Your task to perform on an android device: choose inbox layout in the gmail app Image 0: 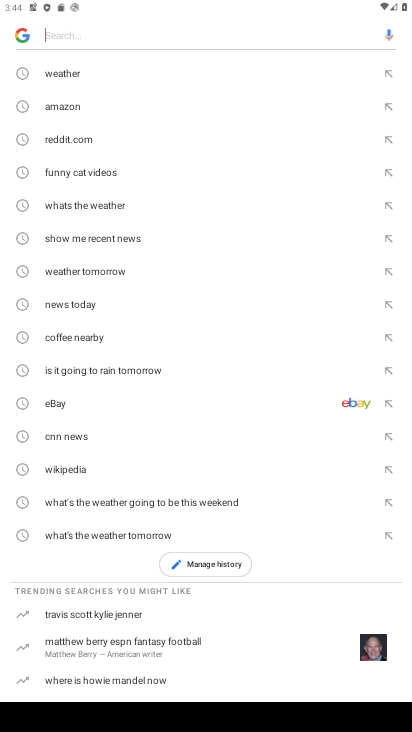
Step 0: press home button
Your task to perform on an android device: choose inbox layout in the gmail app Image 1: 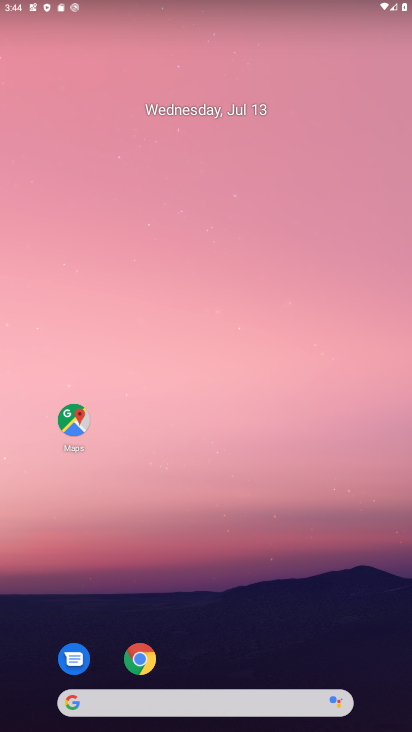
Step 1: drag from (209, 665) to (249, 226)
Your task to perform on an android device: choose inbox layout in the gmail app Image 2: 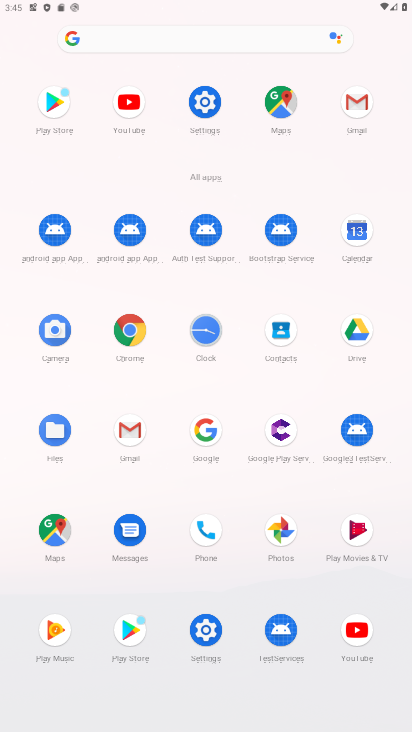
Step 2: click (351, 99)
Your task to perform on an android device: choose inbox layout in the gmail app Image 3: 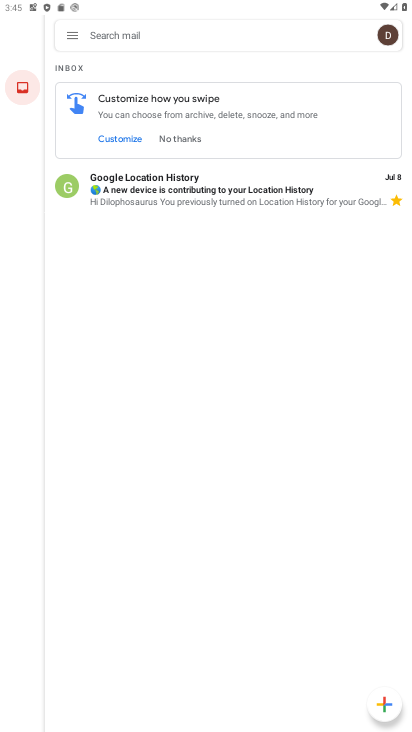
Step 3: click (61, 183)
Your task to perform on an android device: choose inbox layout in the gmail app Image 4: 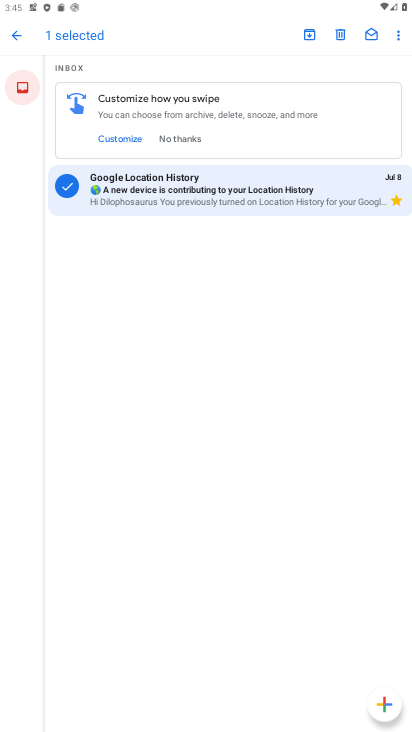
Step 4: click (16, 36)
Your task to perform on an android device: choose inbox layout in the gmail app Image 5: 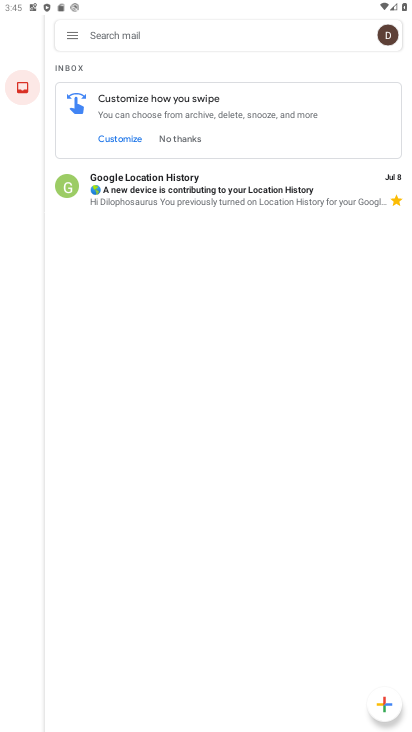
Step 5: click (14, 30)
Your task to perform on an android device: choose inbox layout in the gmail app Image 6: 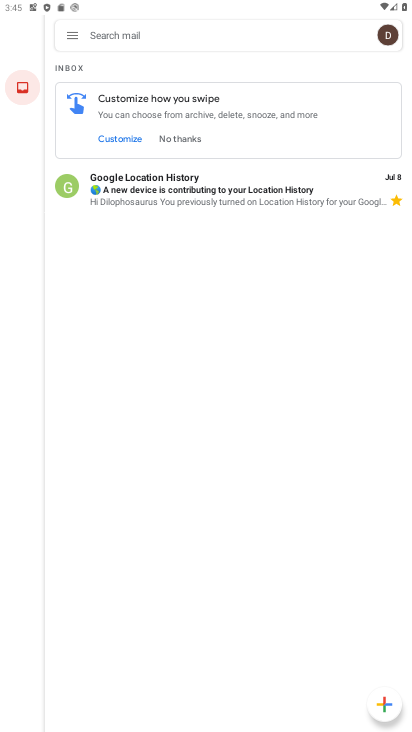
Step 6: click (71, 31)
Your task to perform on an android device: choose inbox layout in the gmail app Image 7: 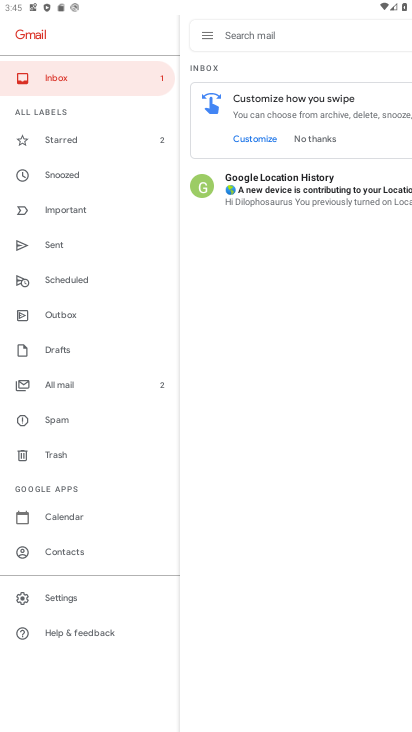
Step 7: click (73, 594)
Your task to perform on an android device: choose inbox layout in the gmail app Image 8: 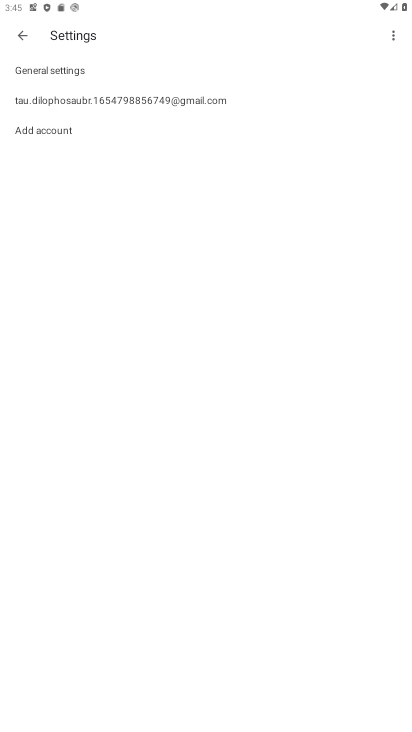
Step 8: click (169, 101)
Your task to perform on an android device: choose inbox layout in the gmail app Image 9: 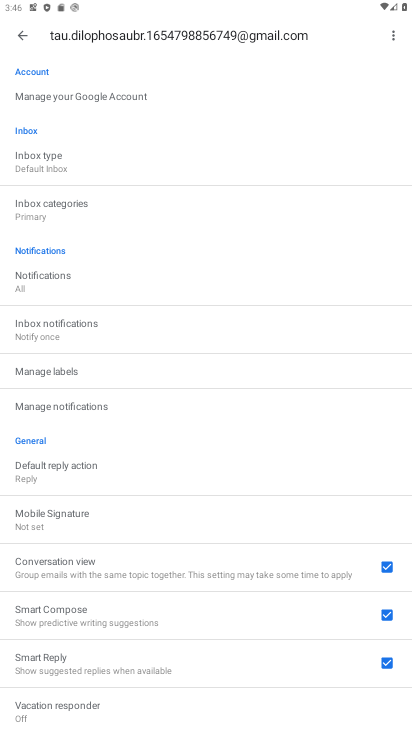
Step 9: task complete